Your task to perform on an android device: What's the weather? Image 0: 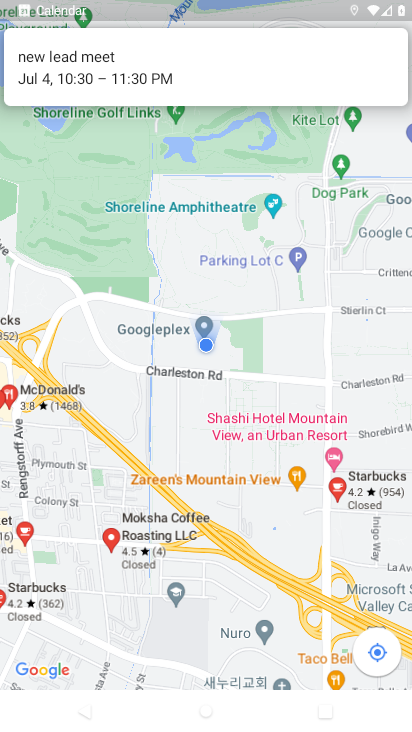
Step 0: click (208, 475)
Your task to perform on an android device: What's the weather? Image 1: 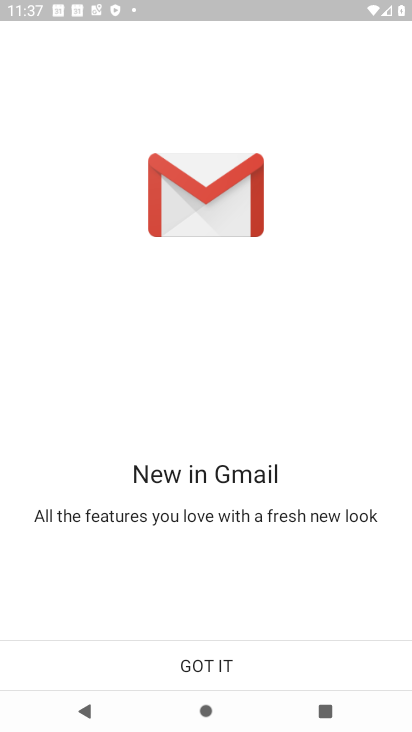
Step 1: press home button
Your task to perform on an android device: What's the weather? Image 2: 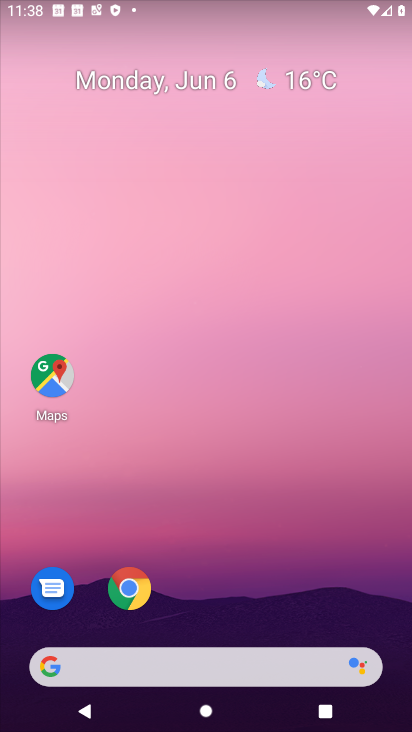
Step 2: click (215, 682)
Your task to perform on an android device: What's the weather? Image 3: 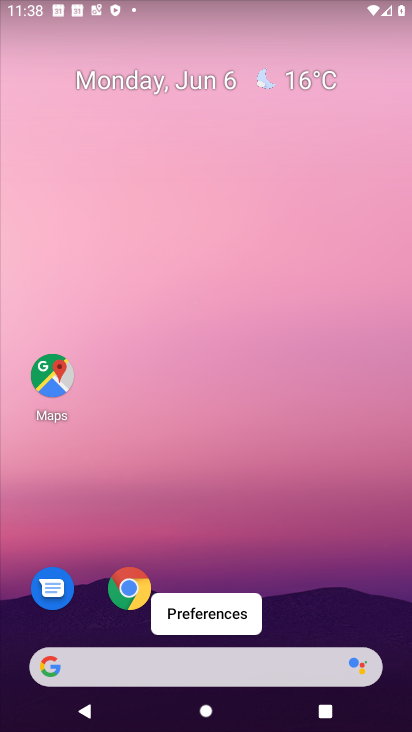
Step 3: click (219, 666)
Your task to perform on an android device: What's the weather? Image 4: 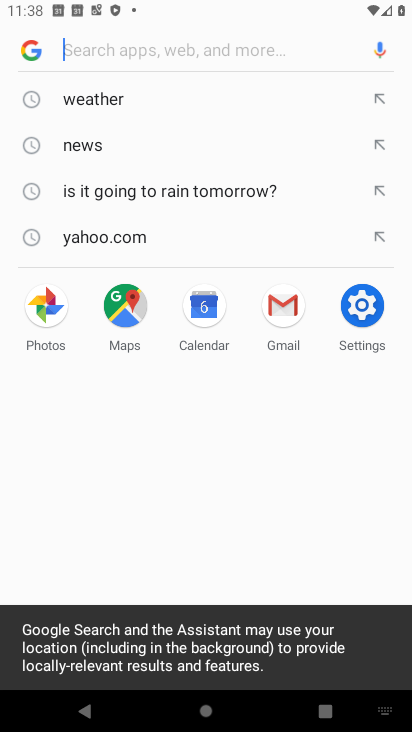
Step 4: click (83, 101)
Your task to perform on an android device: What's the weather? Image 5: 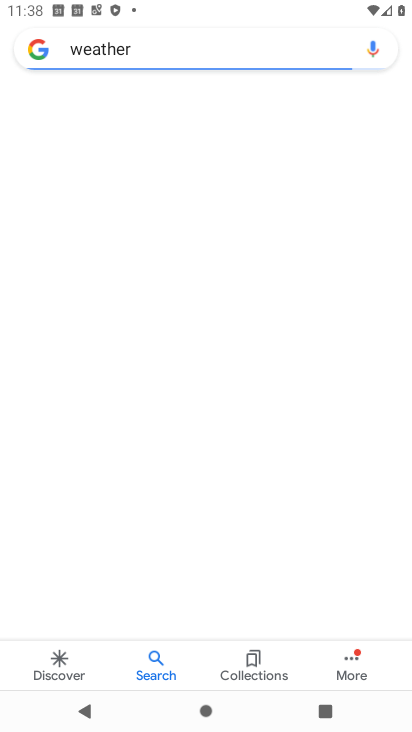
Step 5: task complete